Your task to perform on an android device: turn notification dots off Image 0: 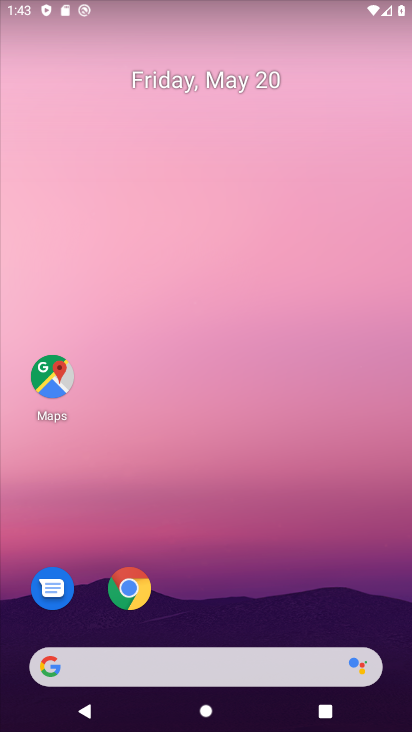
Step 0: drag from (294, 506) to (307, 43)
Your task to perform on an android device: turn notification dots off Image 1: 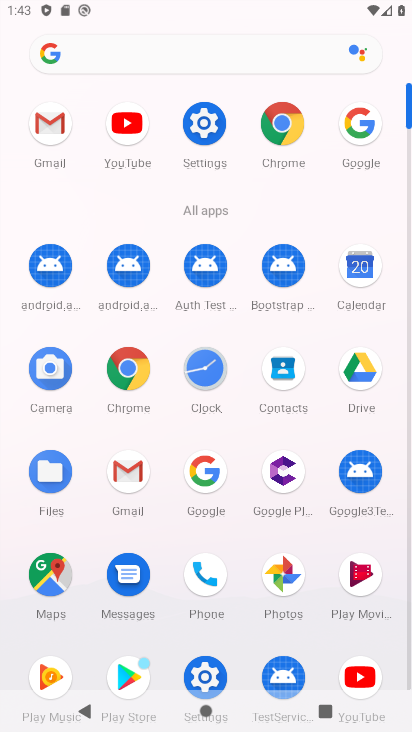
Step 1: click (198, 126)
Your task to perform on an android device: turn notification dots off Image 2: 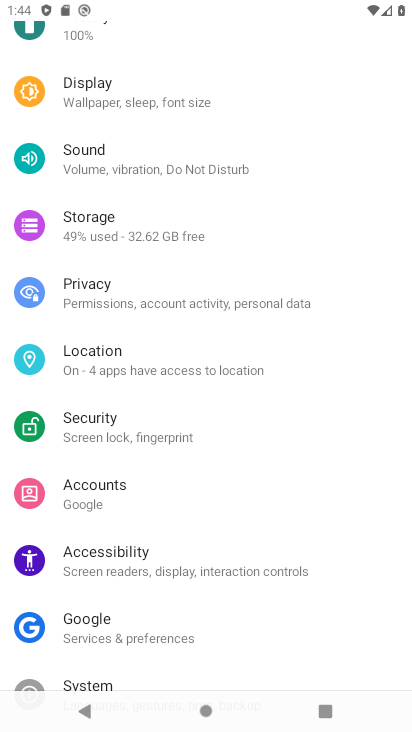
Step 2: drag from (136, 190) to (215, 629)
Your task to perform on an android device: turn notification dots off Image 3: 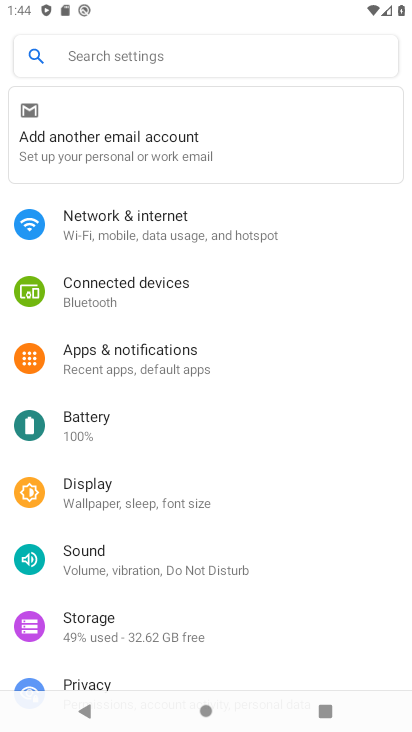
Step 3: click (123, 354)
Your task to perform on an android device: turn notification dots off Image 4: 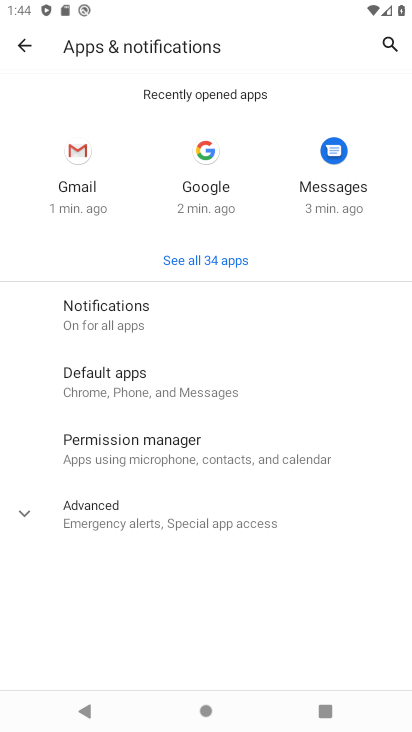
Step 4: click (99, 286)
Your task to perform on an android device: turn notification dots off Image 5: 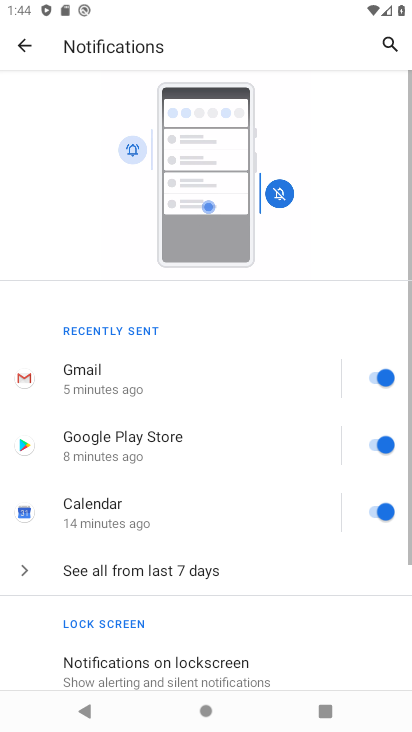
Step 5: drag from (226, 503) to (179, 131)
Your task to perform on an android device: turn notification dots off Image 6: 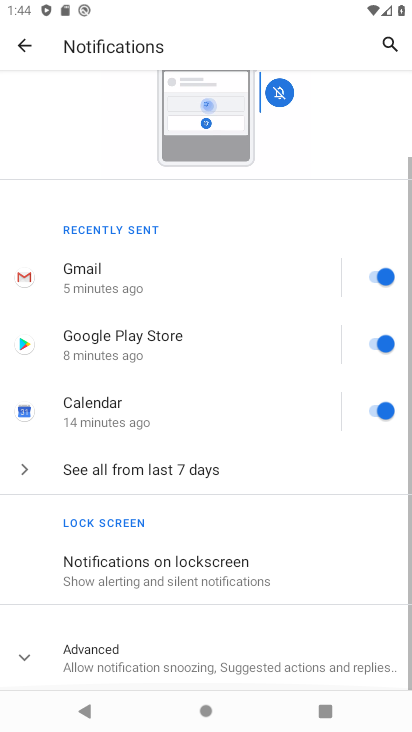
Step 6: drag from (190, 439) to (121, 85)
Your task to perform on an android device: turn notification dots off Image 7: 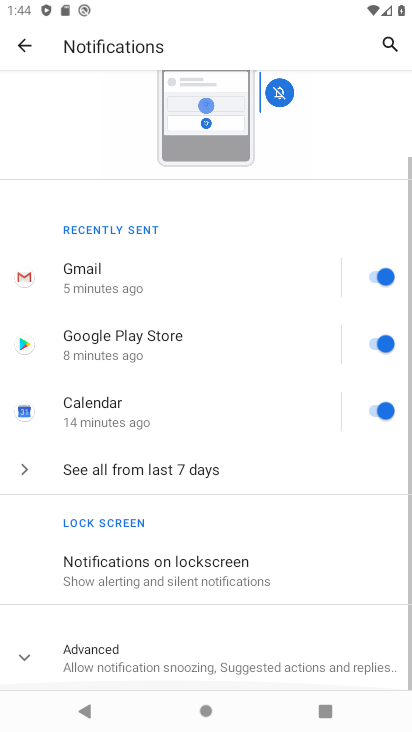
Step 7: drag from (170, 442) to (278, 36)
Your task to perform on an android device: turn notification dots off Image 8: 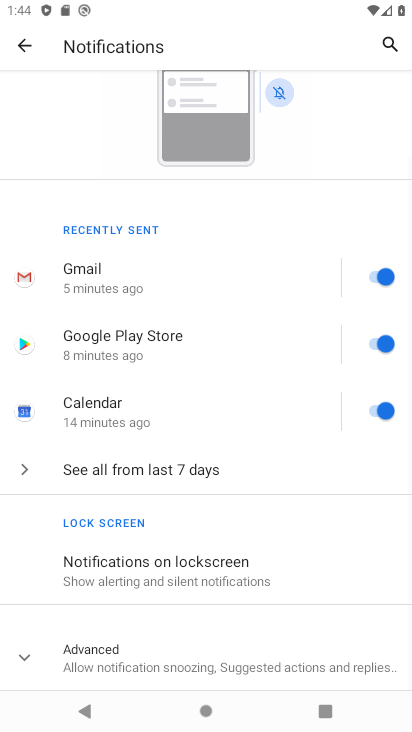
Step 8: drag from (231, 497) to (234, 30)
Your task to perform on an android device: turn notification dots off Image 9: 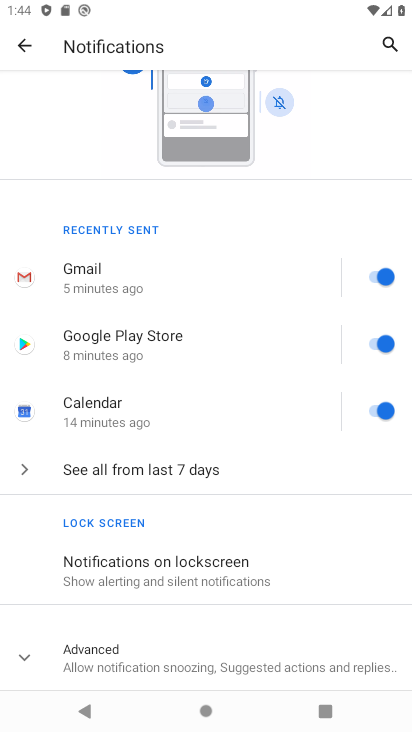
Step 9: click (114, 667)
Your task to perform on an android device: turn notification dots off Image 10: 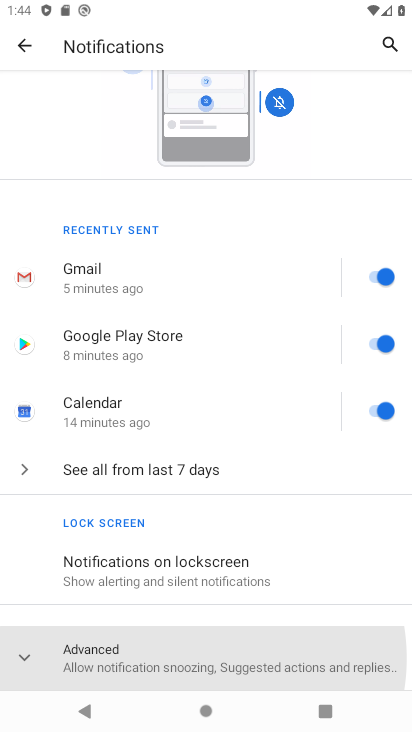
Step 10: click (114, 667)
Your task to perform on an android device: turn notification dots off Image 11: 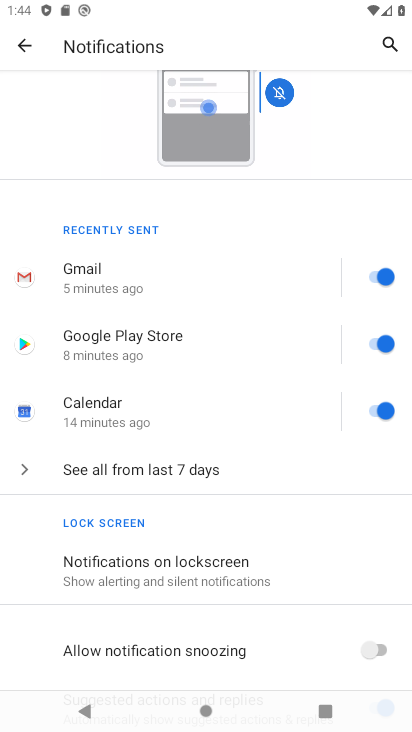
Step 11: drag from (225, 601) to (223, 350)
Your task to perform on an android device: turn notification dots off Image 12: 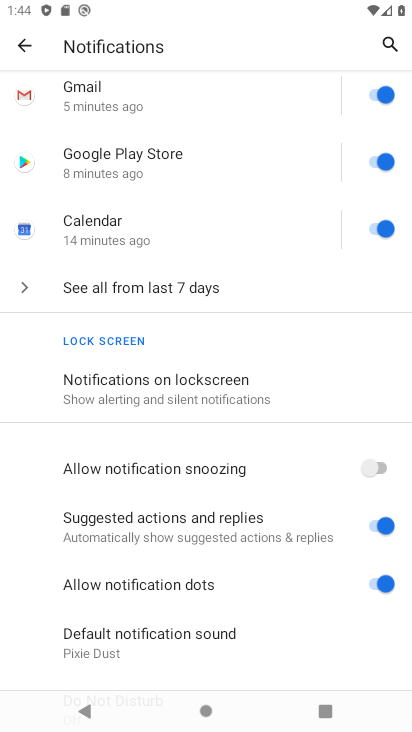
Step 12: click (397, 565)
Your task to perform on an android device: turn notification dots off Image 13: 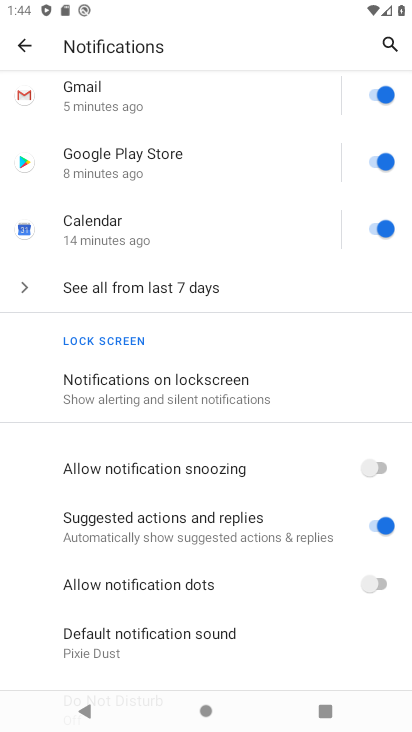
Step 13: task complete